Your task to perform on an android device: Open Amazon Image 0: 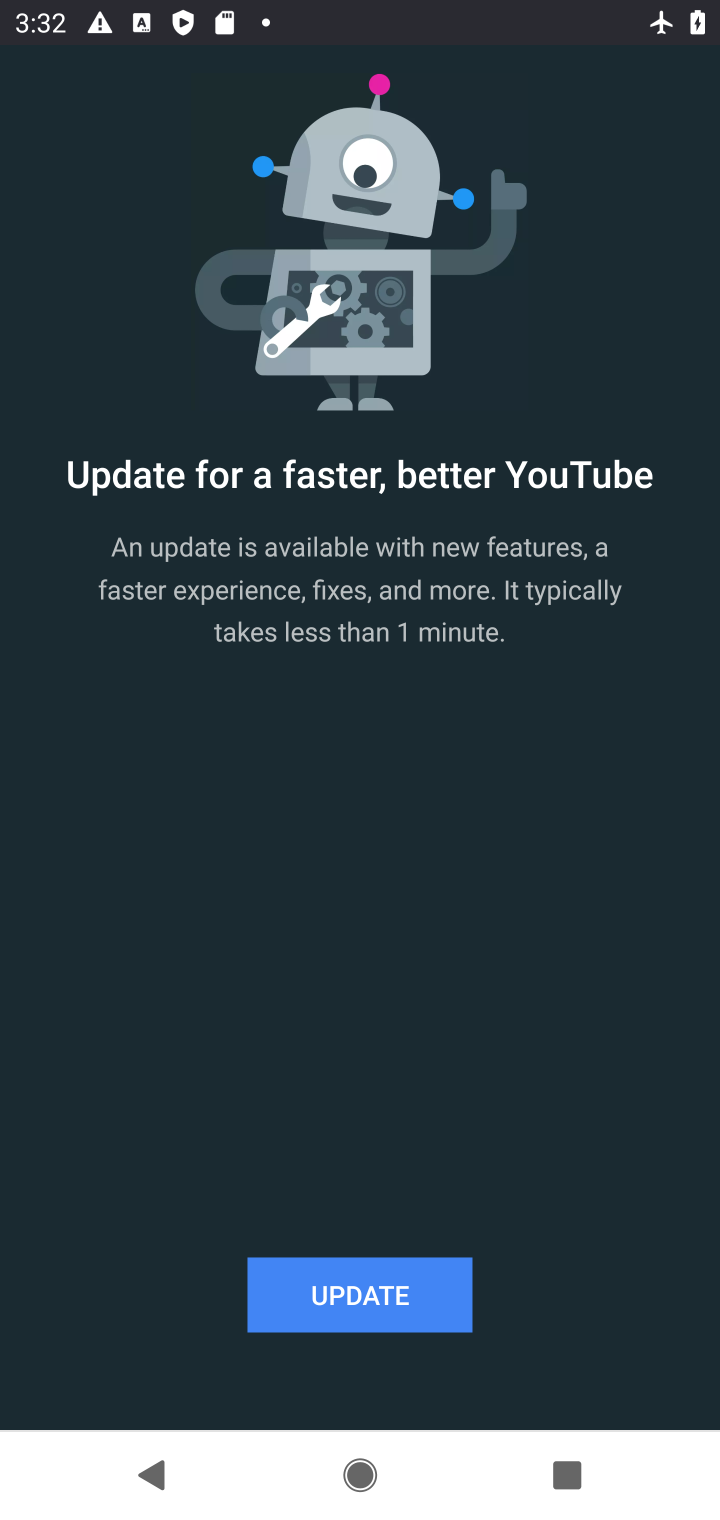
Step 0: press home button
Your task to perform on an android device: Open Amazon Image 1: 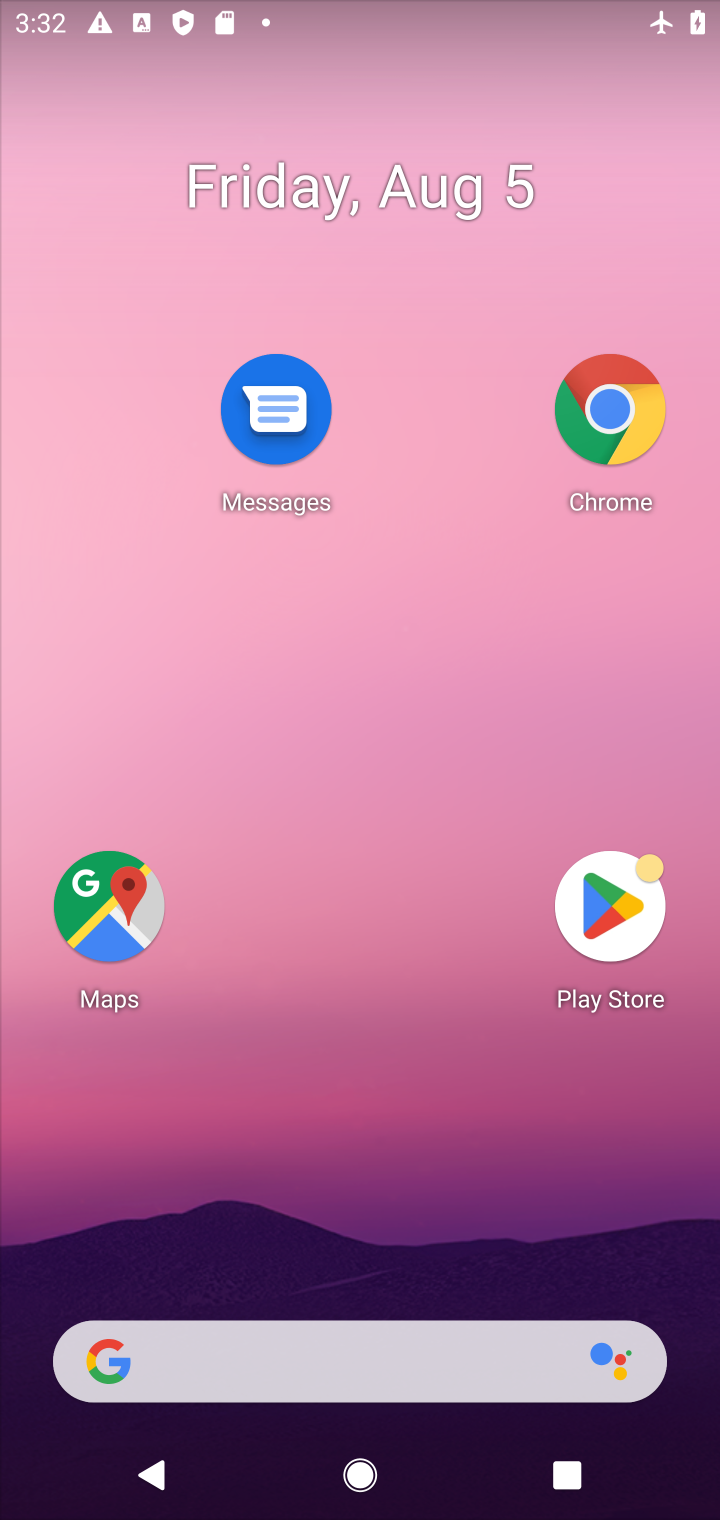
Step 1: click (596, 441)
Your task to perform on an android device: Open Amazon Image 2: 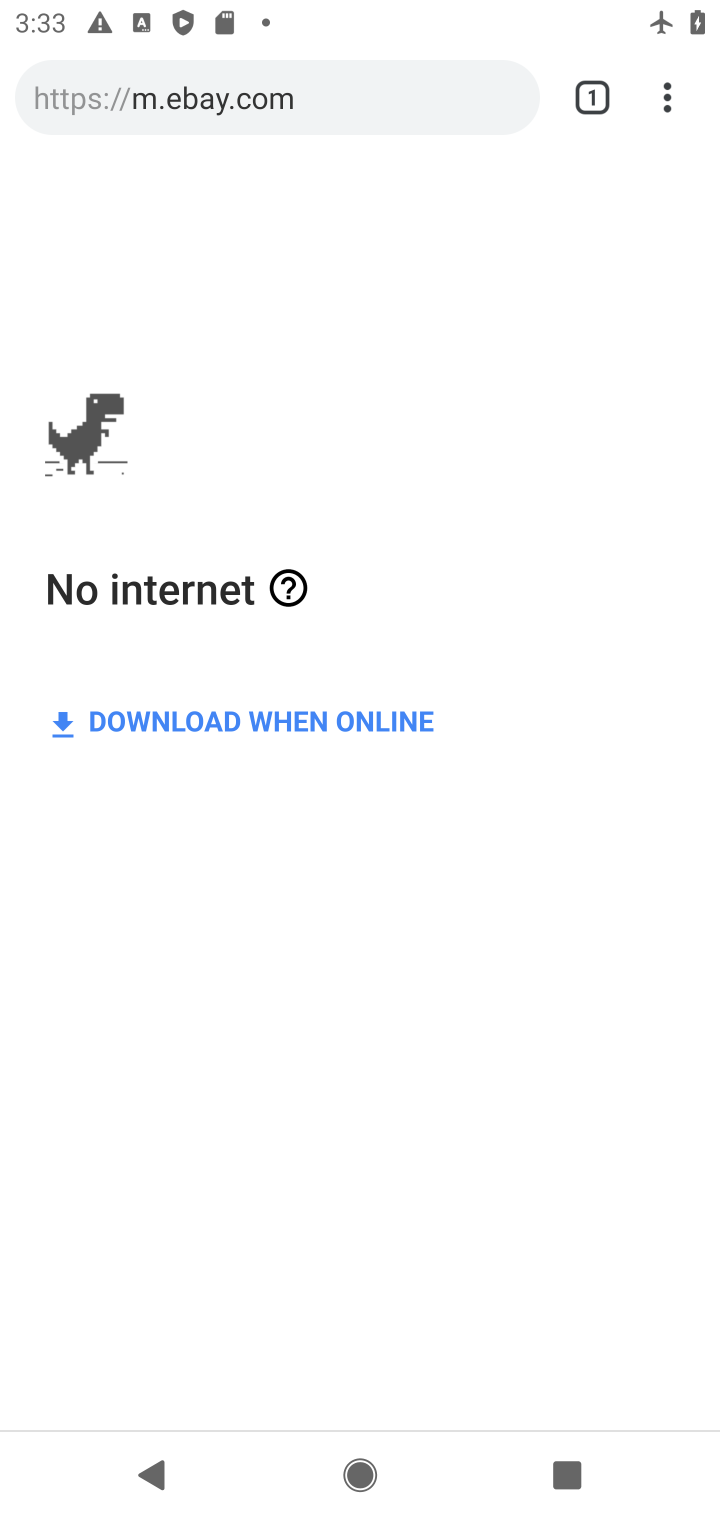
Step 2: click (570, 100)
Your task to perform on an android device: Open Amazon Image 3: 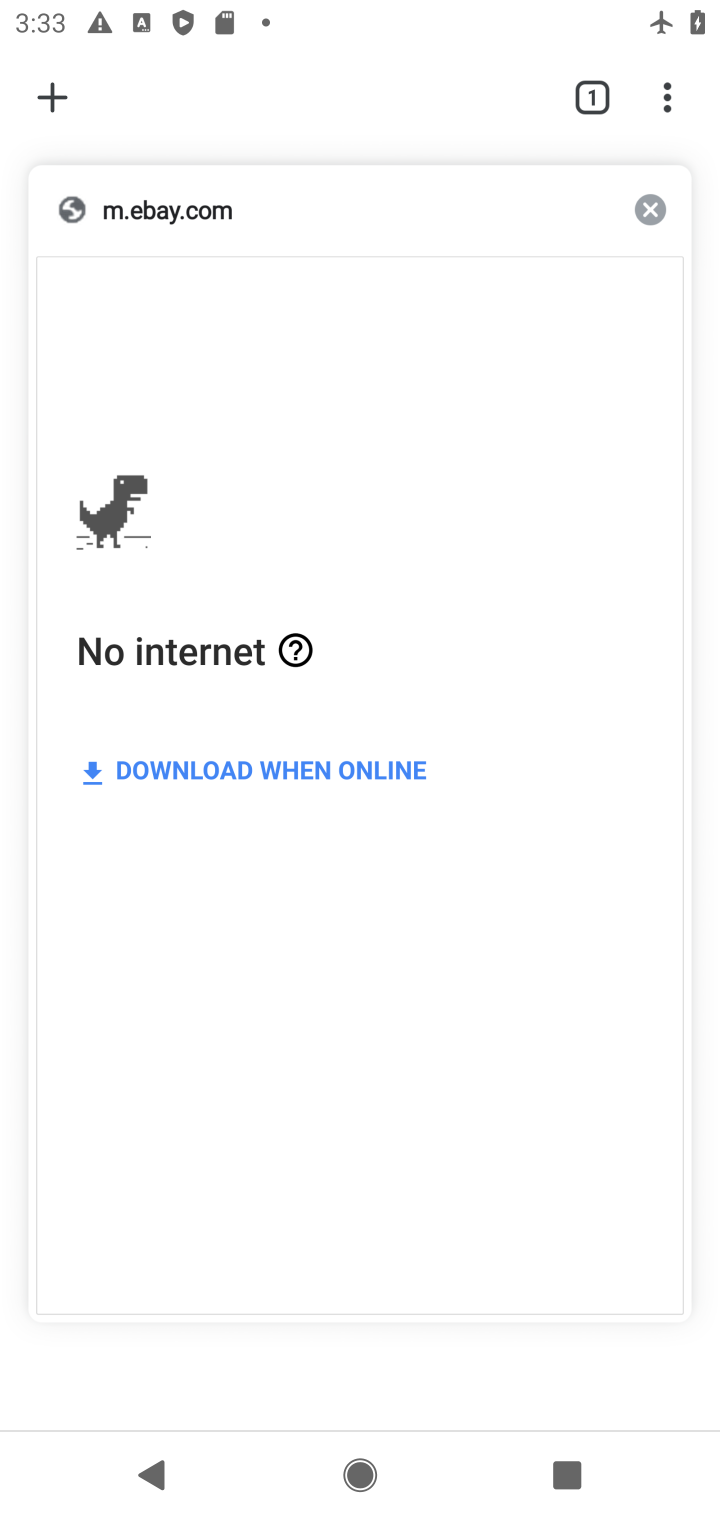
Step 3: click (57, 89)
Your task to perform on an android device: Open Amazon Image 4: 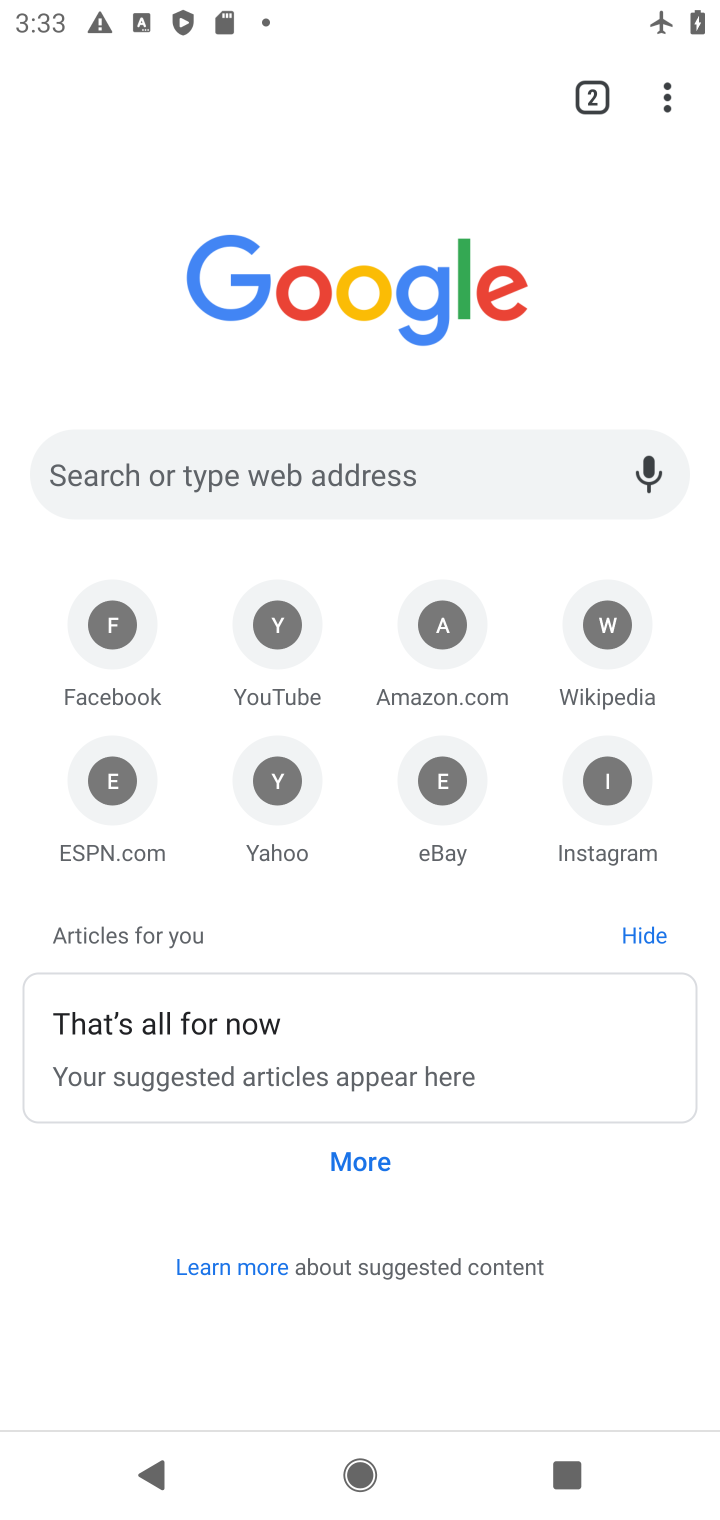
Step 4: click (423, 623)
Your task to perform on an android device: Open Amazon Image 5: 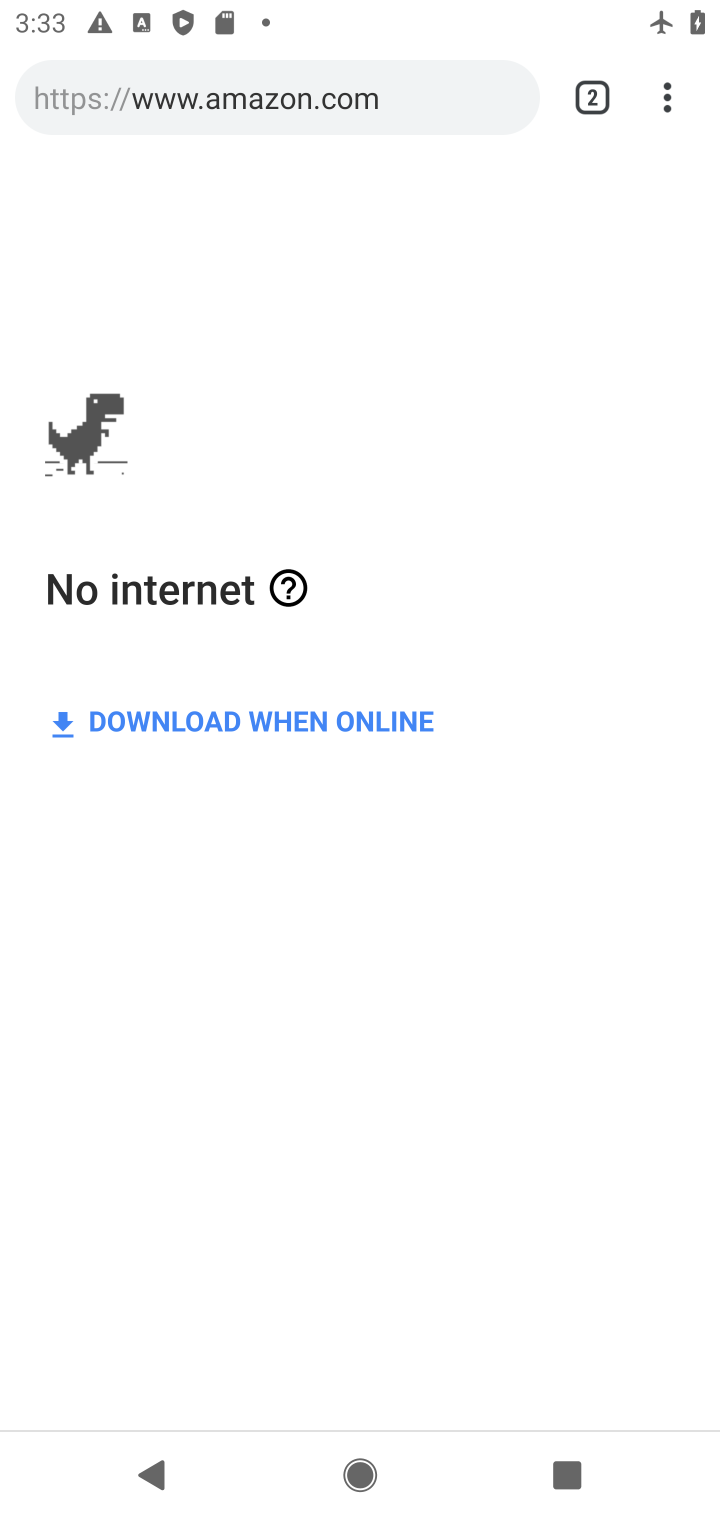
Step 5: task complete